Your task to perform on an android device: Open calendar and show me the first week of next month Image 0: 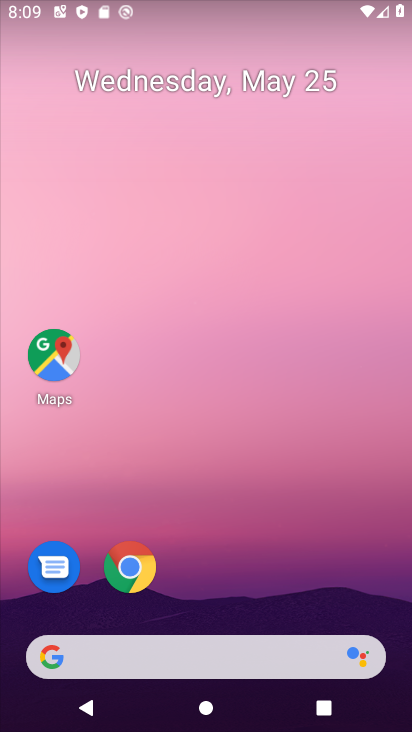
Step 0: drag from (277, 612) to (263, 173)
Your task to perform on an android device: Open calendar and show me the first week of next month Image 1: 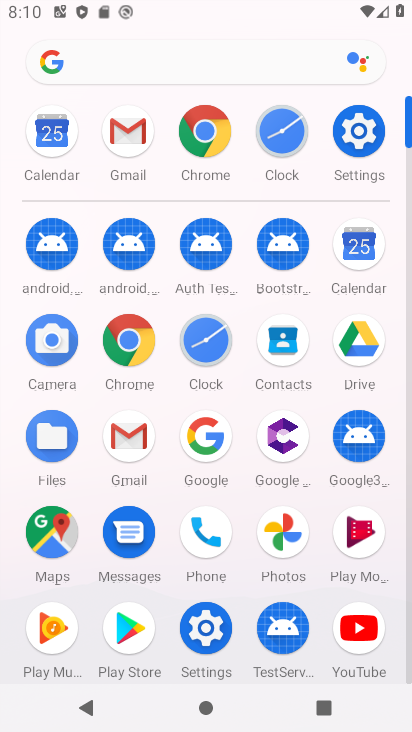
Step 1: click (59, 173)
Your task to perform on an android device: Open calendar and show me the first week of next month Image 2: 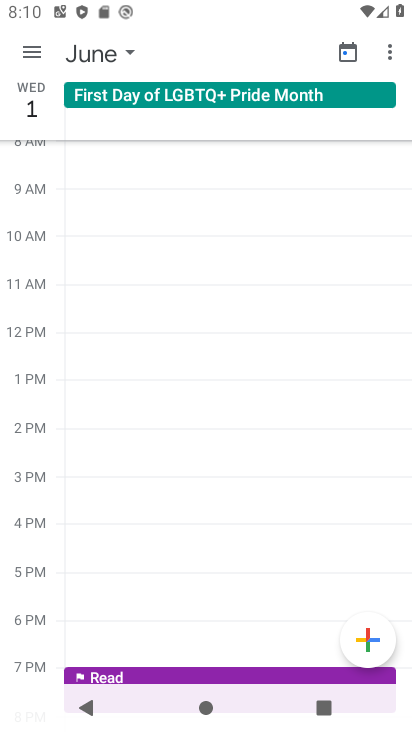
Step 2: task complete